Your task to perform on an android device: toggle improve location accuracy Image 0: 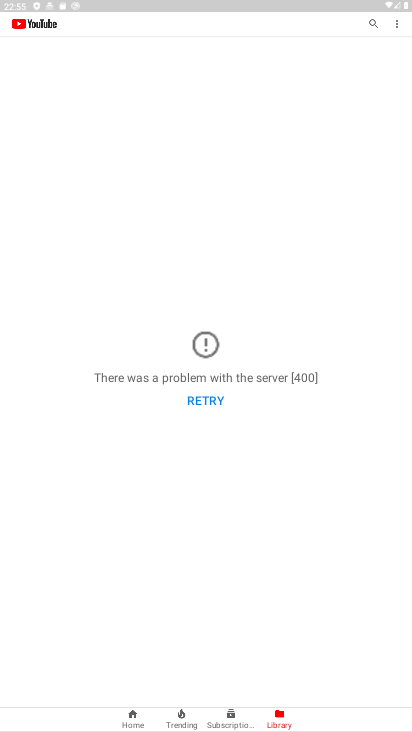
Step 0: press back button
Your task to perform on an android device: toggle improve location accuracy Image 1: 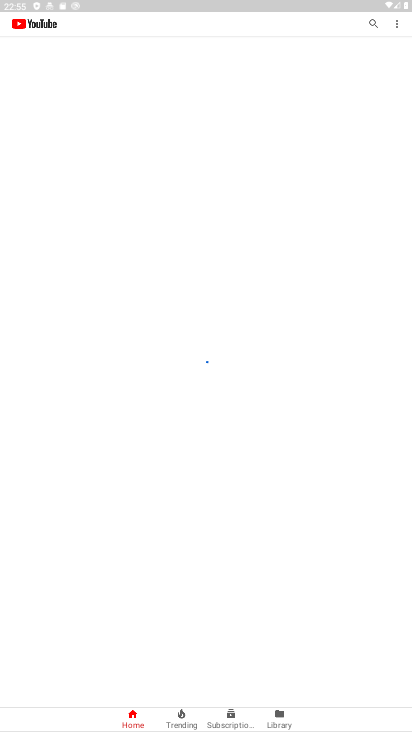
Step 1: press back button
Your task to perform on an android device: toggle improve location accuracy Image 2: 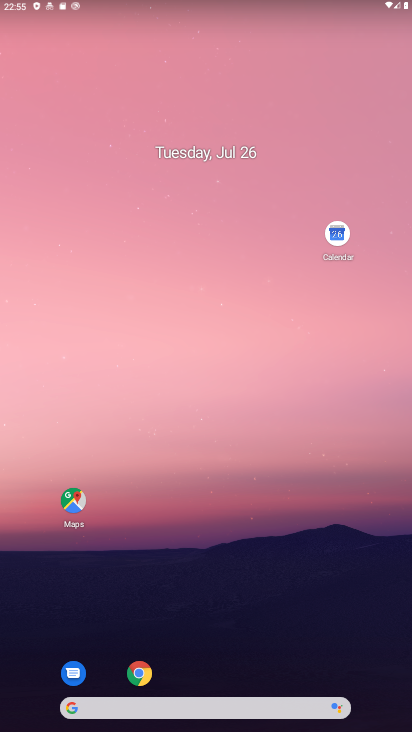
Step 2: drag from (233, 583) to (164, 138)
Your task to perform on an android device: toggle improve location accuracy Image 3: 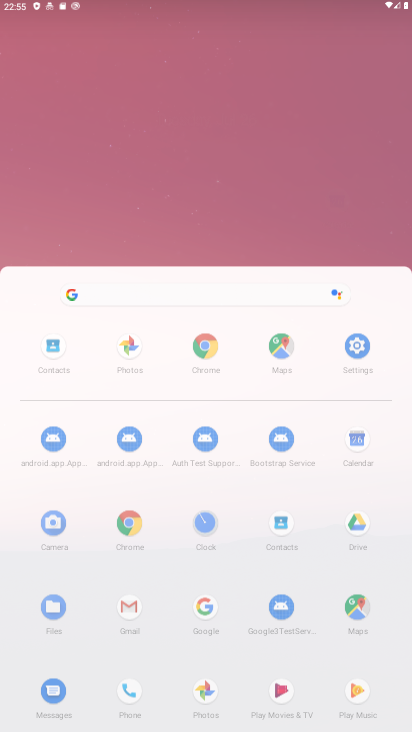
Step 3: drag from (239, 612) to (236, 139)
Your task to perform on an android device: toggle improve location accuracy Image 4: 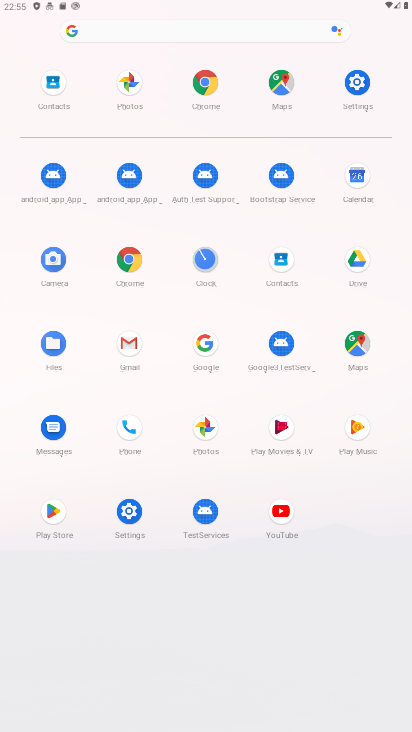
Step 4: click (356, 86)
Your task to perform on an android device: toggle improve location accuracy Image 5: 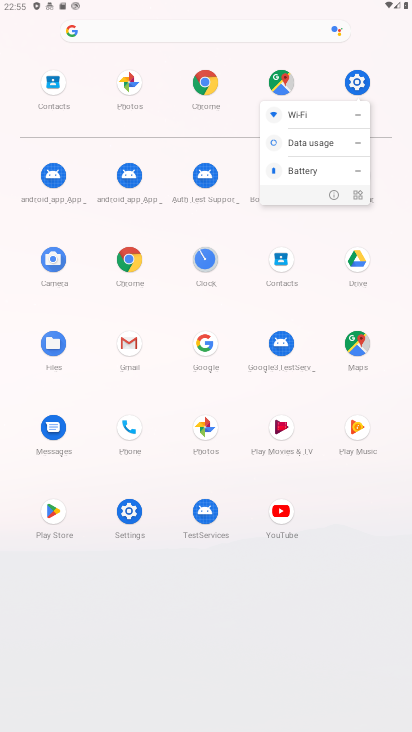
Step 5: click (347, 73)
Your task to perform on an android device: toggle improve location accuracy Image 6: 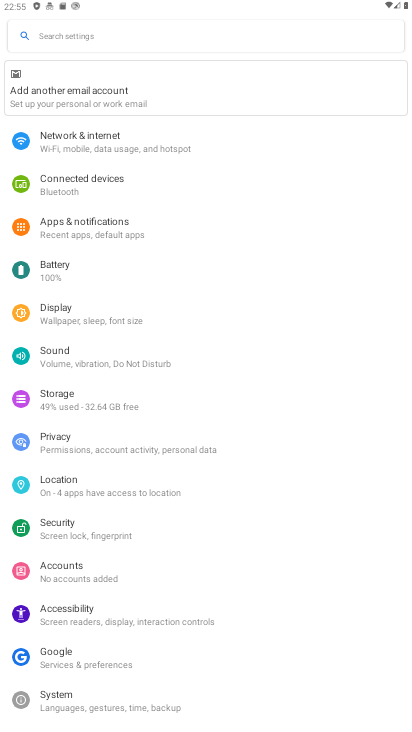
Step 6: click (64, 492)
Your task to perform on an android device: toggle improve location accuracy Image 7: 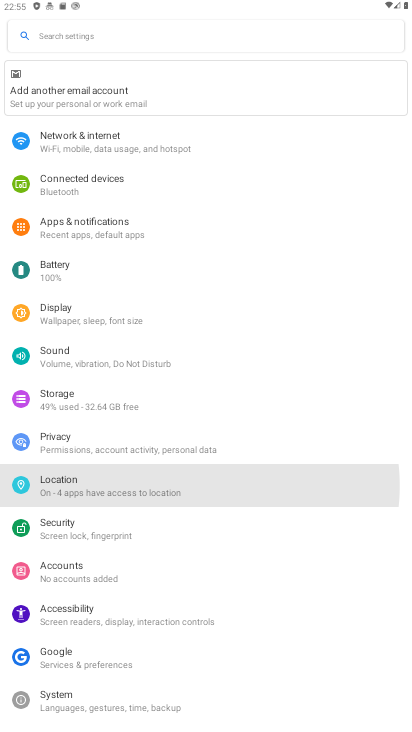
Step 7: click (65, 491)
Your task to perform on an android device: toggle improve location accuracy Image 8: 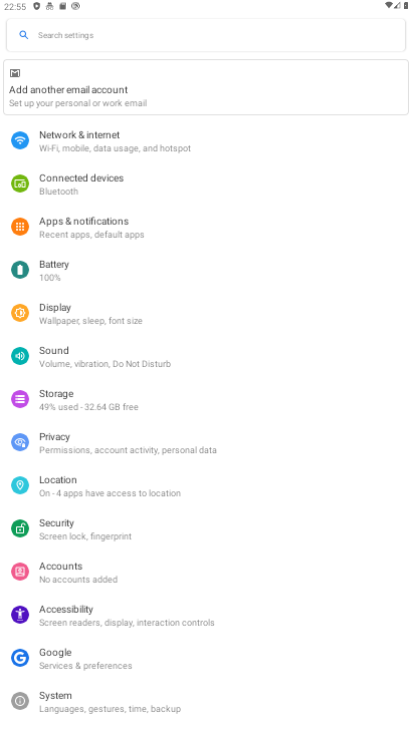
Step 8: click (70, 492)
Your task to perform on an android device: toggle improve location accuracy Image 9: 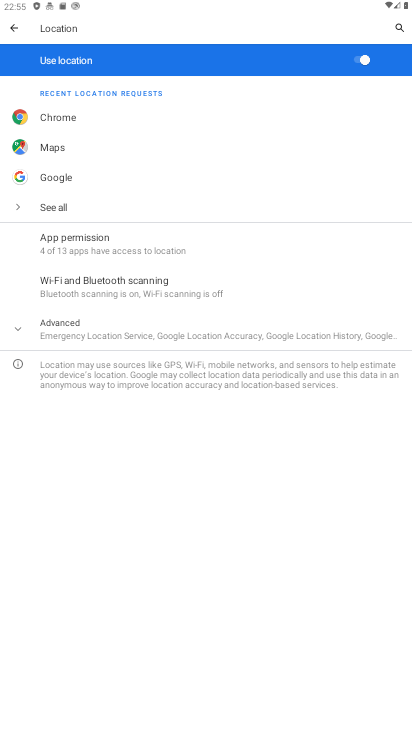
Step 9: click (367, 49)
Your task to perform on an android device: toggle improve location accuracy Image 10: 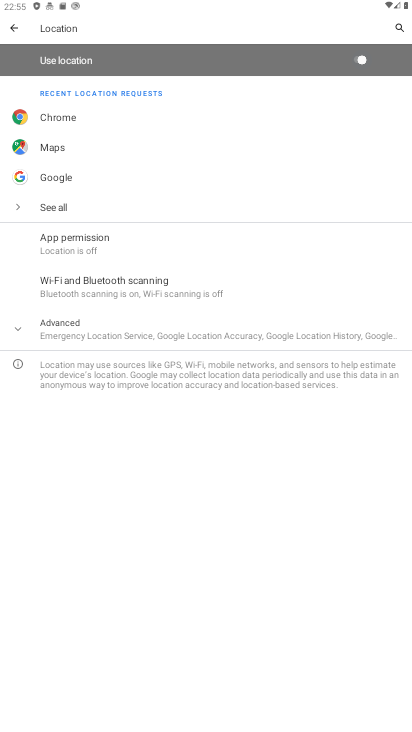
Step 10: click (367, 54)
Your task to perform on an android device: toggle improve location accuracy Image 11: 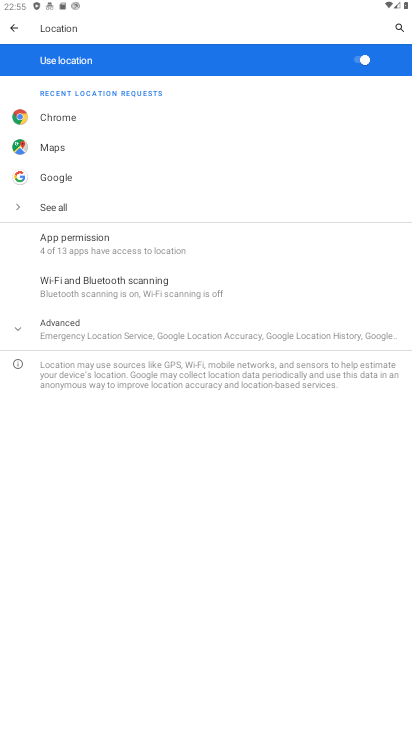
Step 11: click (363, 62)
Your task to perform on an android device: toggle improve location accuracy Image 12: 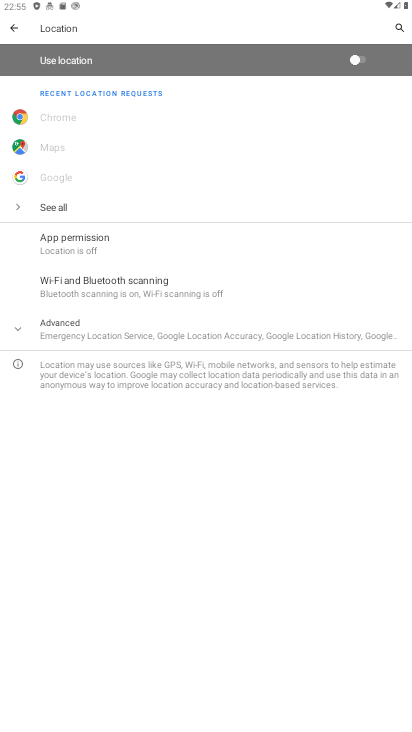
Step 12: task complete